Your task to perform on an android device: set default search engine in the chrome app Image 0: 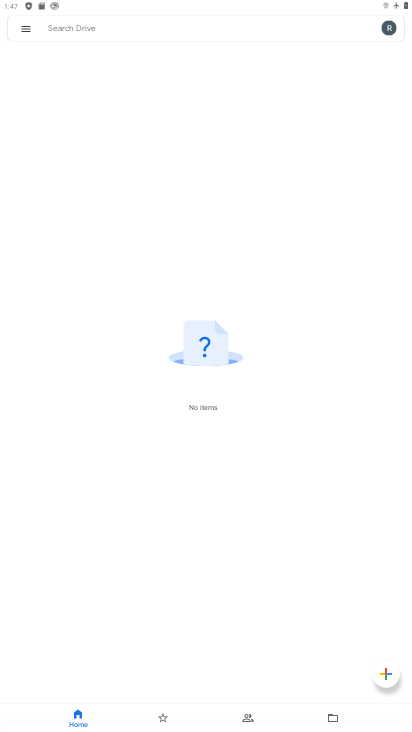
Step 0: press home button
Your task to perform on an android device: set default search engine in the chrome app Image 1: 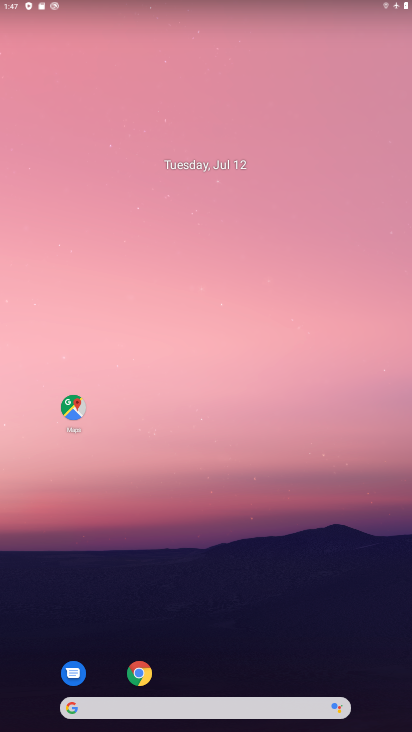
Step 1: drag from (170, 665) to (179, 167)
Your task to perform on an android device: set default search engine in the chrome app Image 2: 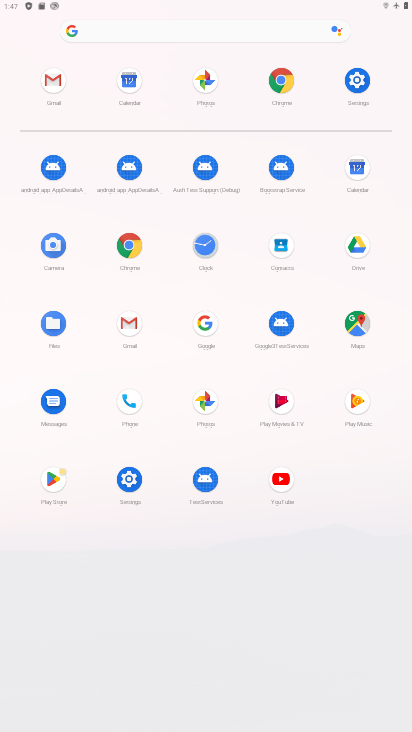
Step 2: click (276, 72)
Your task to perform on an android device: set default search engine in the chrome app Image 3: 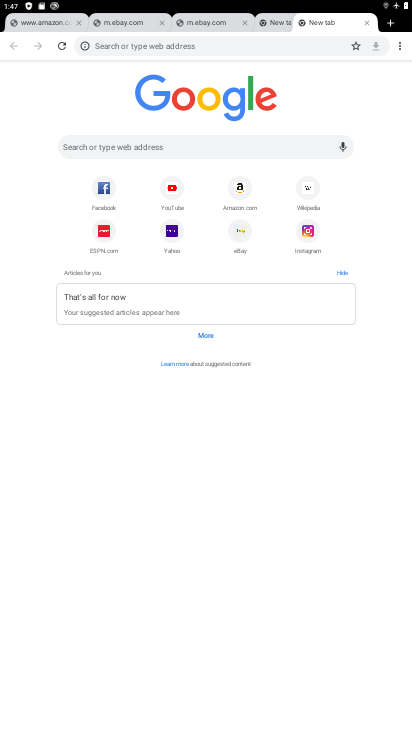
Step 3: click (404, 42)
Your task to perform on an android device: set default search engine in the chrome app Image 4: 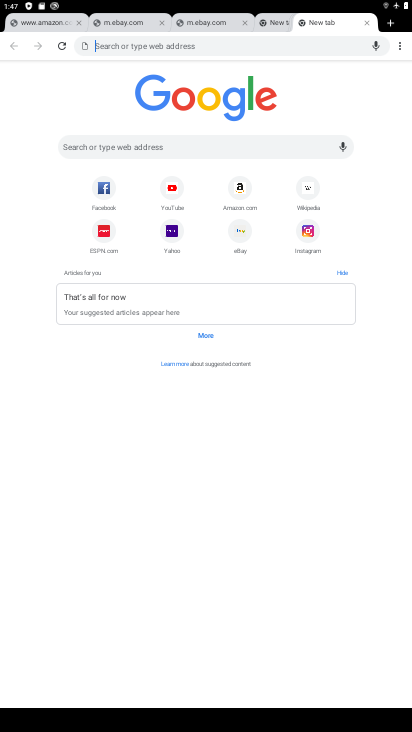
Step 4: click (404, 42)
Your task to perform on an android device: set default search engine in the chrome app Image 5: 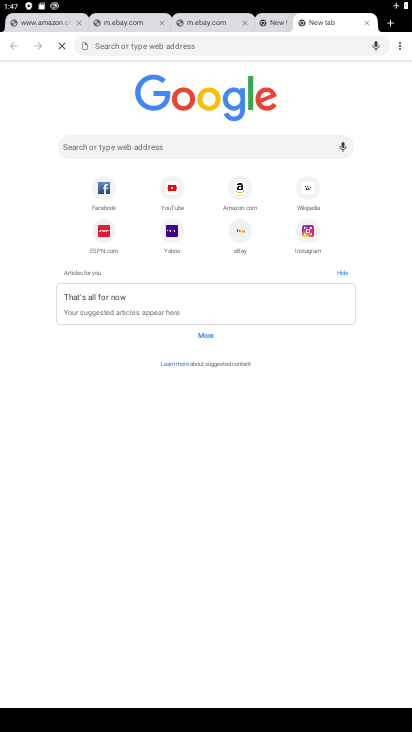
Step 5: click (404, 42)
Your task to perform on an android device: set default search engine in the chrome app Image 6: 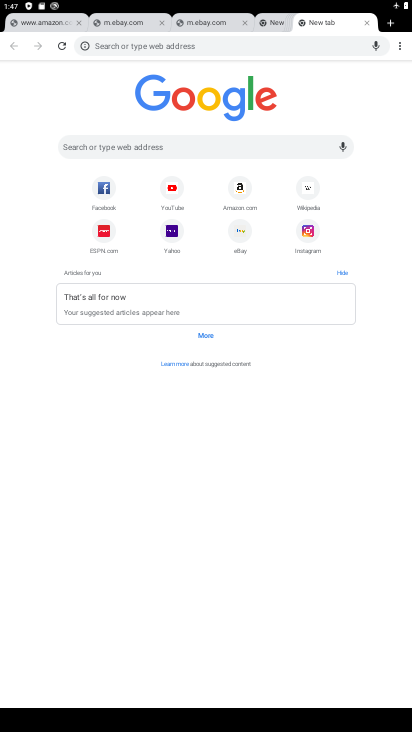
Step 6: click (402, 42)
Your task to perform on an android device: set default search engine in the chrome app Image 7: 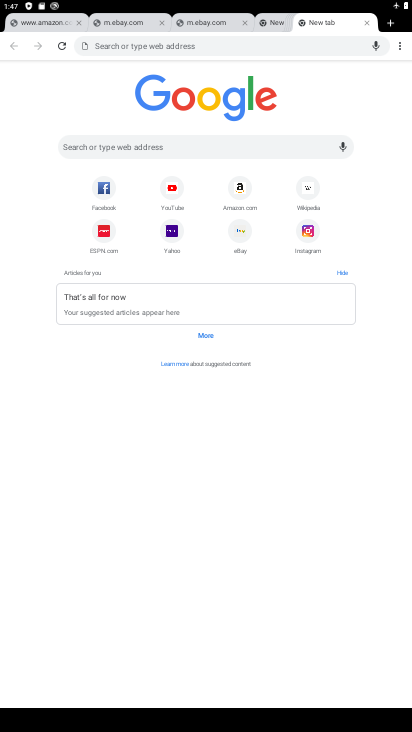
Step 7: click (402, 42)
Your task to perform on an android device: set default search engine in the chrome app Image 8: 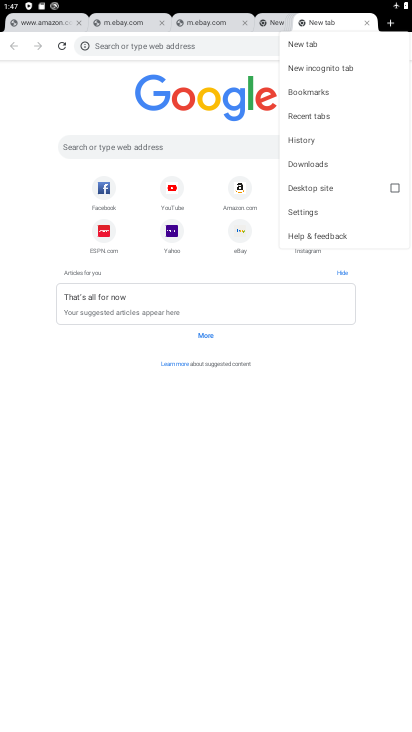
Step 8: click (316, 211)
Your task to perform on an android device: set default search engine in the chrome app Image 9: 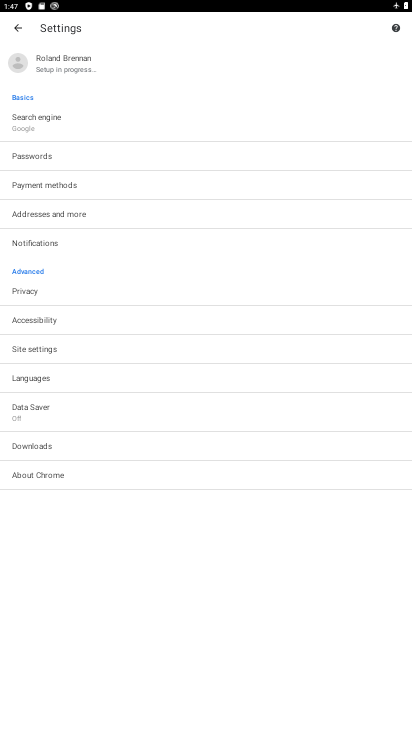
Step 9: click (67, 120)
Your task to perform on an android device: set default search engine in the chrome app Image 10: 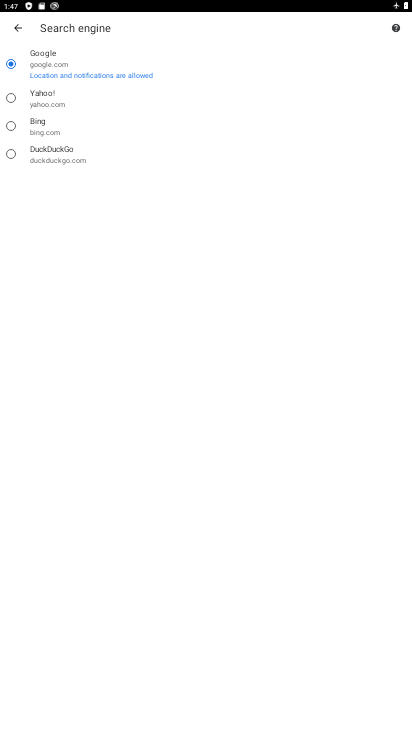
Step 10: click (36, 107)
Your task to perform on an android device: set default search engine in the chrome app Image 11: 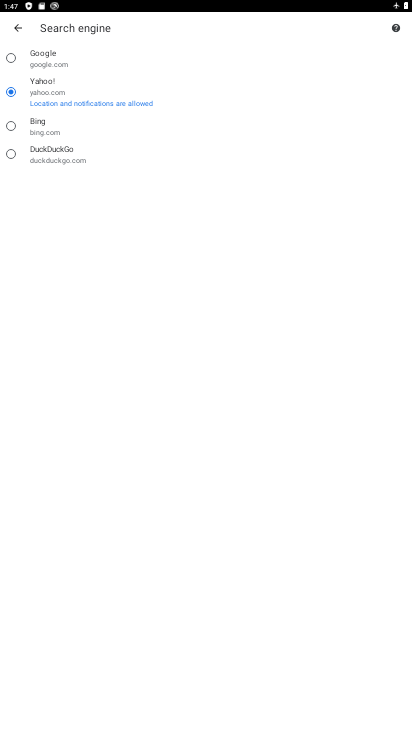
Step 11: task complete